Your task to perform on an android device: Open Amazon Image 0: 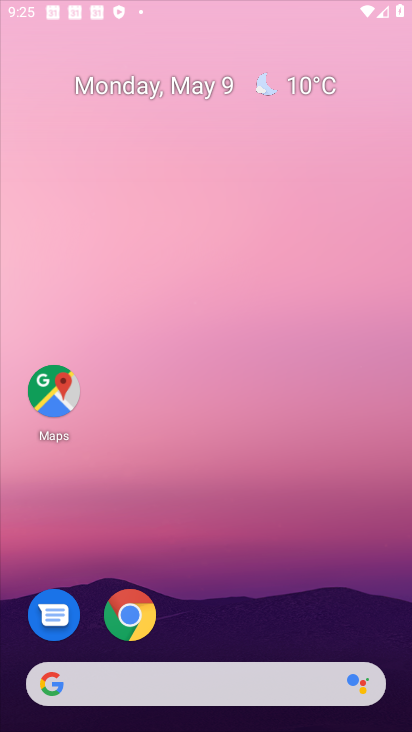
Step 0: drag from (187, 343) to (230, 36)
Your task to perform on an android device: Open Amazon Image 1: 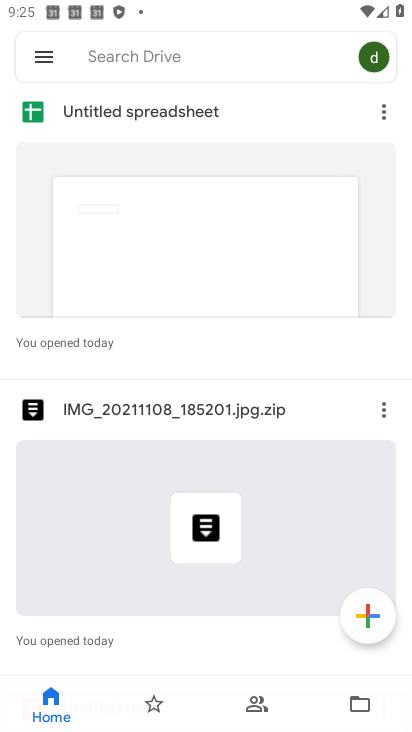
Step 1: press home button
Your task to perform on an android device: Open Amazon Image 2: 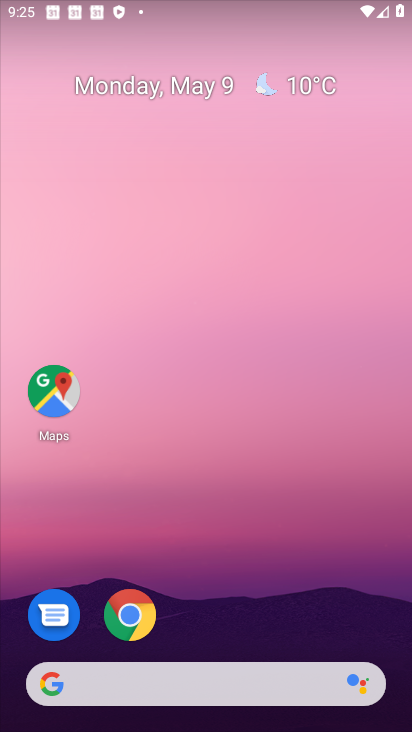
Step 2: click (127, 621)
Your task to perform on an android device: Open Amazon Image 3: 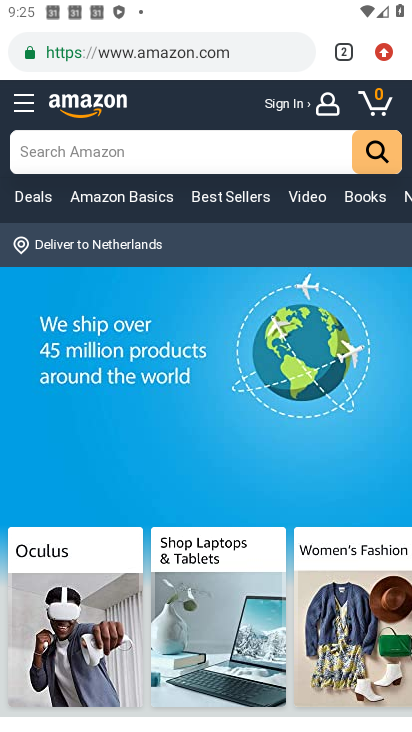
Step 3: task complete